Your task to perform on an android device: Open accessibility settings Image 0: 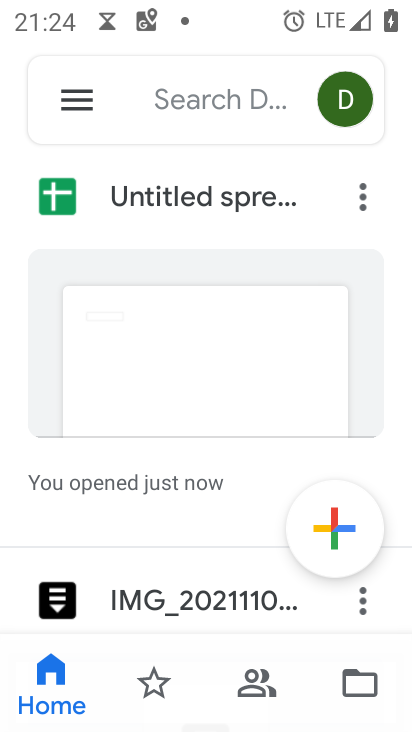
Step 0: press home button
Your task to perform on an android device: Open accessibility settings Image 1: 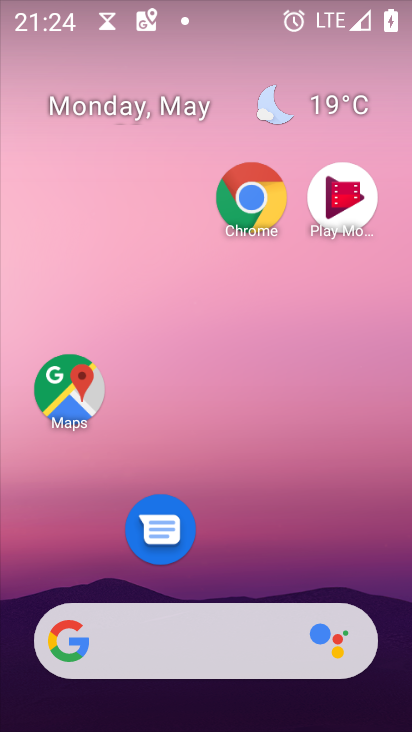
Step 1: drag from (249, 558) to (254, 168)
Your task to perform on an android device: Open accessibility settings Image 2: 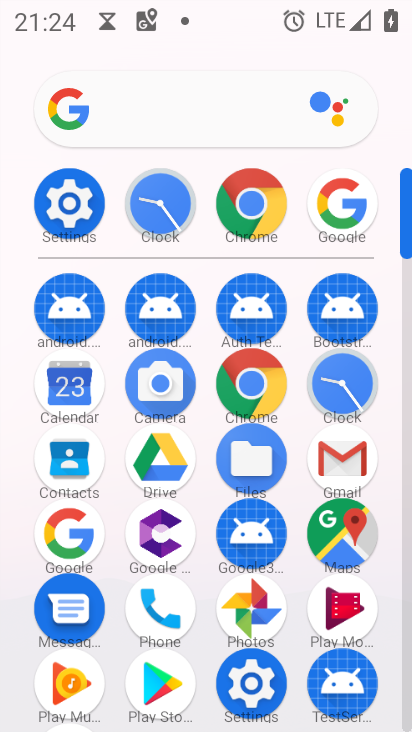
Step 2: click (73, 212)
Your task to perform on an android device: Open accessibility settings Image 3: 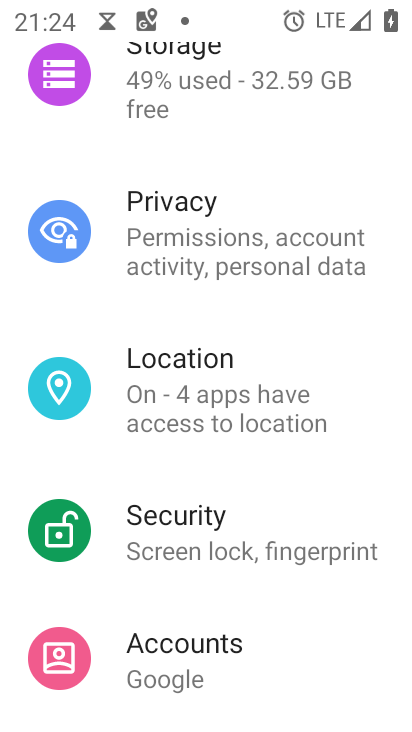
Step 3: click (184, 234)
Your task to perform on an android device: Open accessibility settings Image 4: 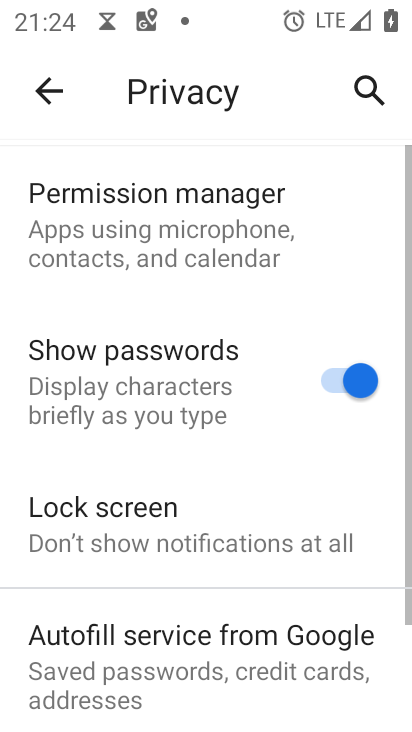
Step 4: task complete